Your task to perform on an android device: turn off smart reply in the gmail app Image 0: 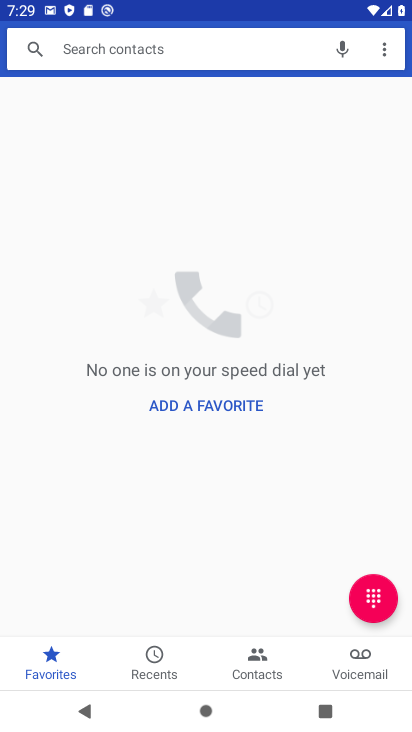
Step 0: press home button
Your task to perform on an android device: turn off smart reply in the gmail app Image 1: 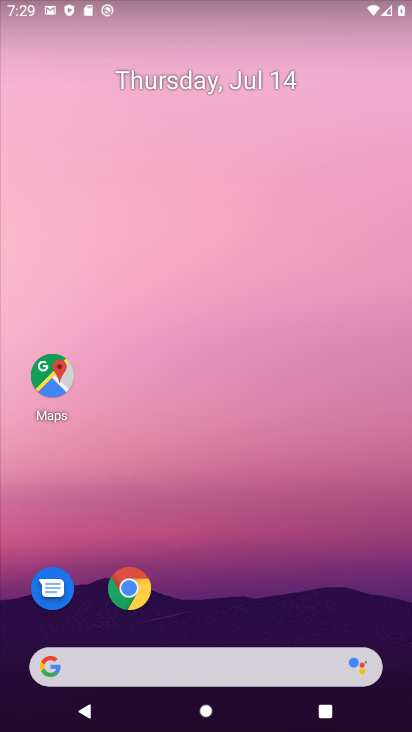
Step 1: drag from (218, 632) to (284, 213)
Your task to perform on an android device: turn off smart reply in the gmail app Image 2: 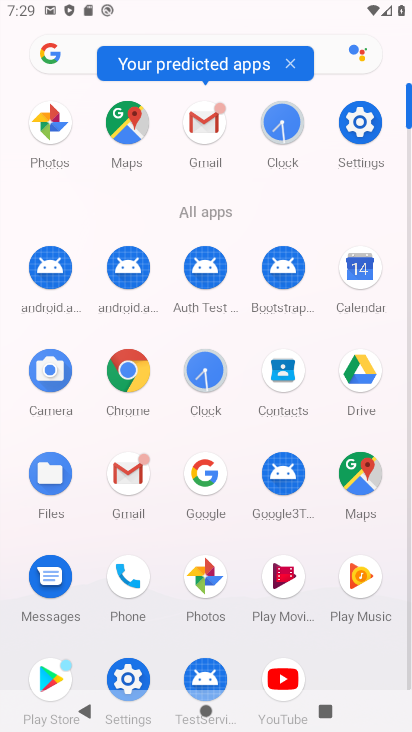
Step 2: click (209, 118)
Your task to perform on an android device: turn off smart reply in the gmail app Image 3: 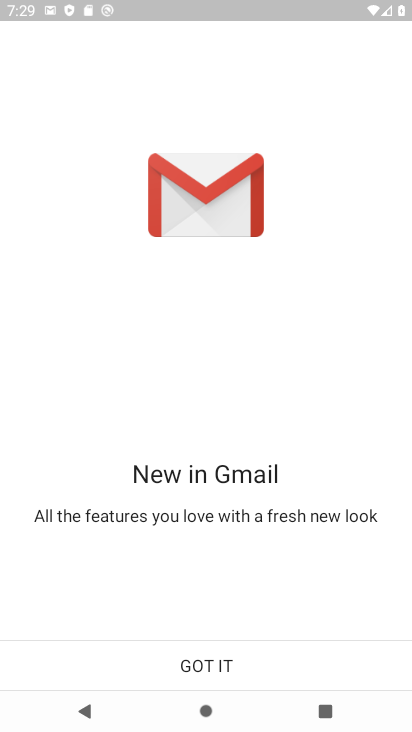
Step 3: click (195, 657)
Your task to perform on an android device: turn off smart reply in the gmail app Image 4: 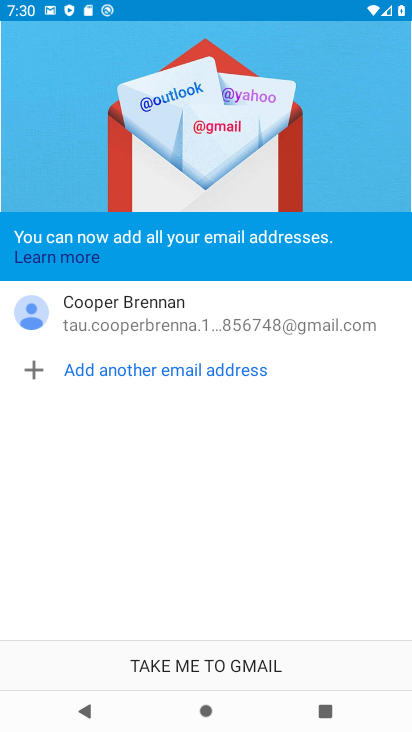
Step 4: click (209, 668)
Your task to perform on an android device: turn off smart reply in the gmail app Image 5: 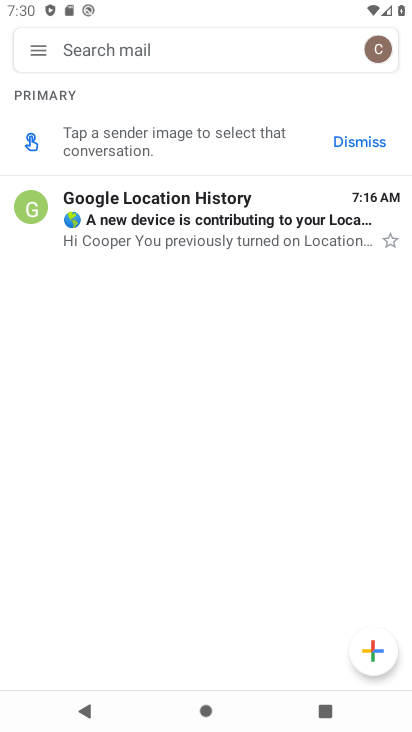
Step 5: click (40, 45)
Your task to perform on an android device: turn off smart reply in the gmail app Image 6: 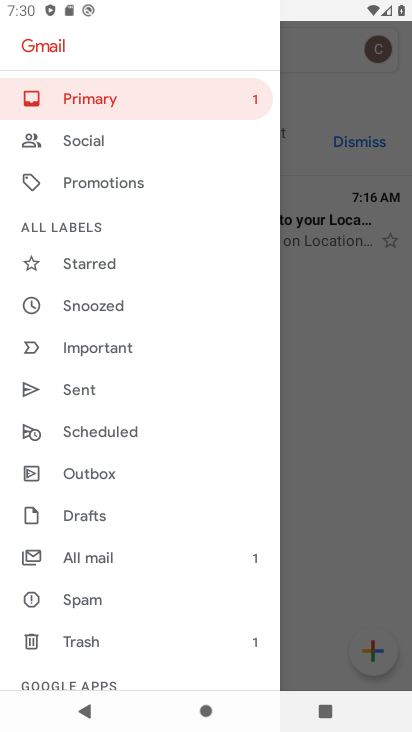
Step 6: drag from (125, 593) to (168, 271)
Your task to perform on an android device: turn off smart reply in the gmail app Image 7: 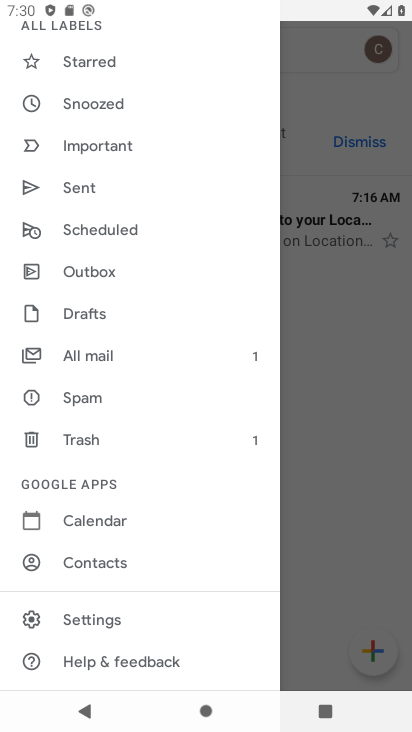
Step 7: click (82, 629)
Your task to perform on an android device: turn off smart reply in the gmail app Image 8: 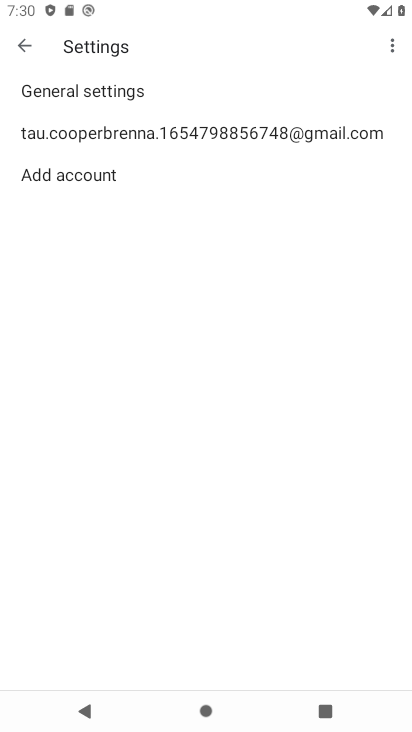
Step 8: click (211, 140)
Your task to perform on an android device: turn off smart reply in the gmail app Image 9: 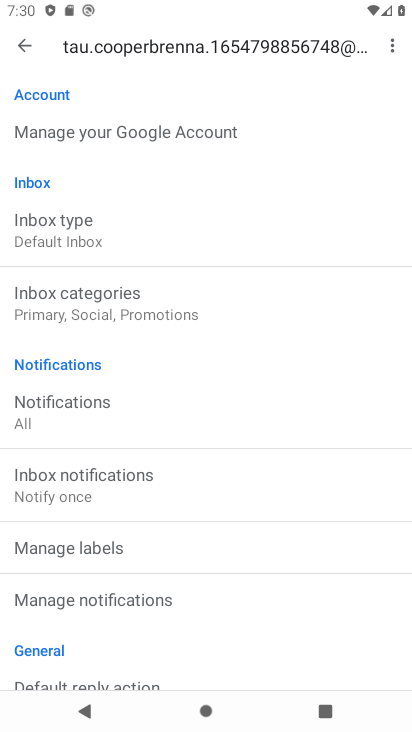
Step 9: drag from (186, 526) to (240, 164)
Your task to perform on an android device: turn off smart reply in the gmail app Image 10: 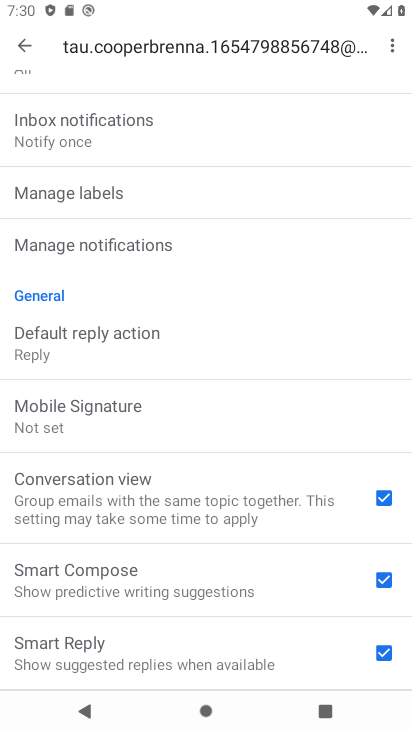
Step 10: click (394, 649)
Your task to perform on an android device: turn off smart reply in the gmail app Image 11: 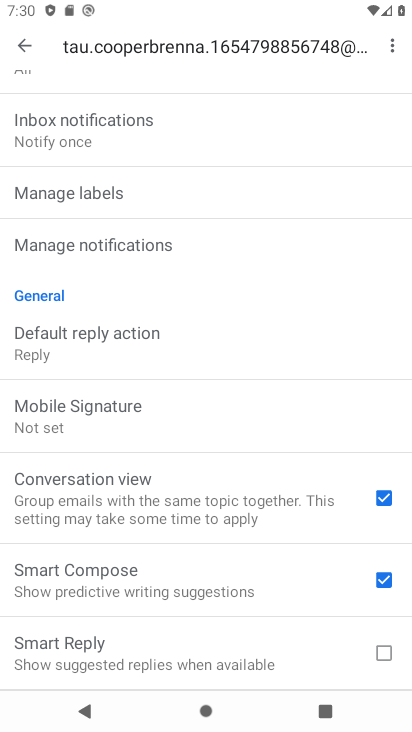
Step 11: task complete